Your task to perform on an android device: Go to accessibility settings Image 0: 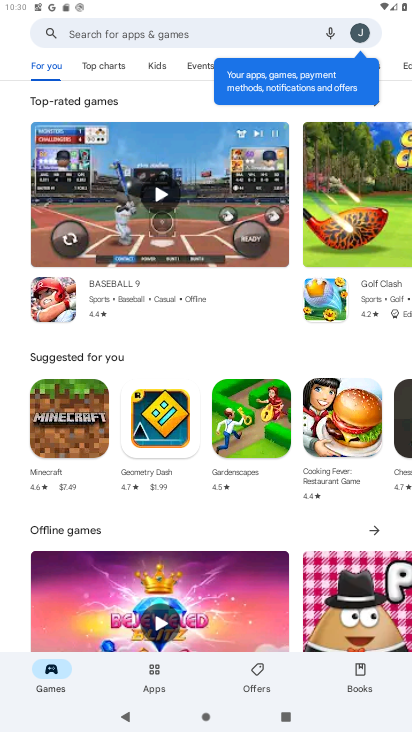
Step 0: press home button
Your task to perform on an android device: Go to accessibility settings Image 1: 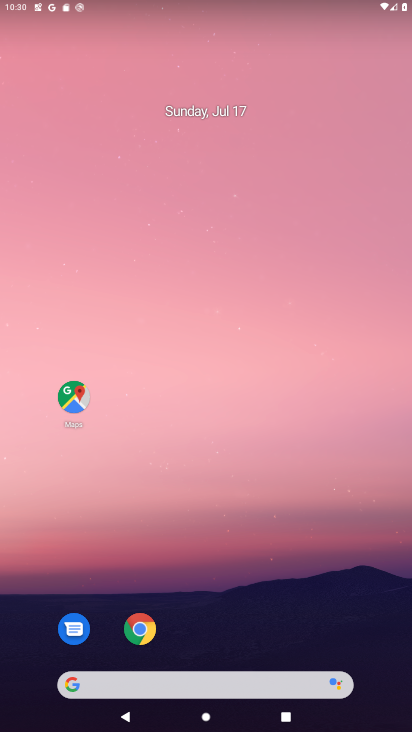
Step 1: drag from (249, 585) to (333, 167)
Your task to perform on an android device: Go to accessibility settings Image 2: 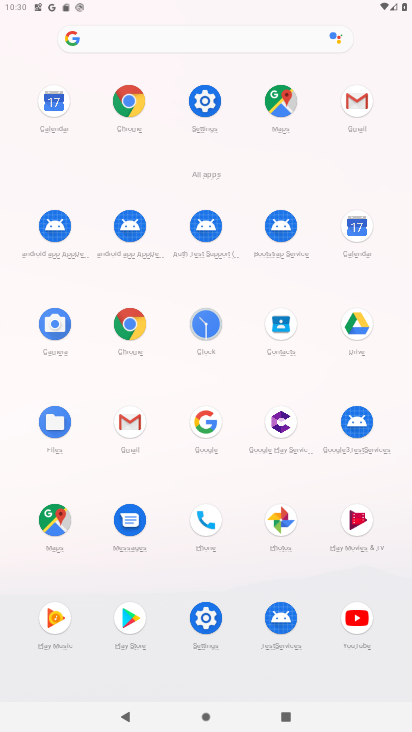
Step 2: click (206, 102)
Your task to perform on an android device: Go to accessibility settings Image 3: 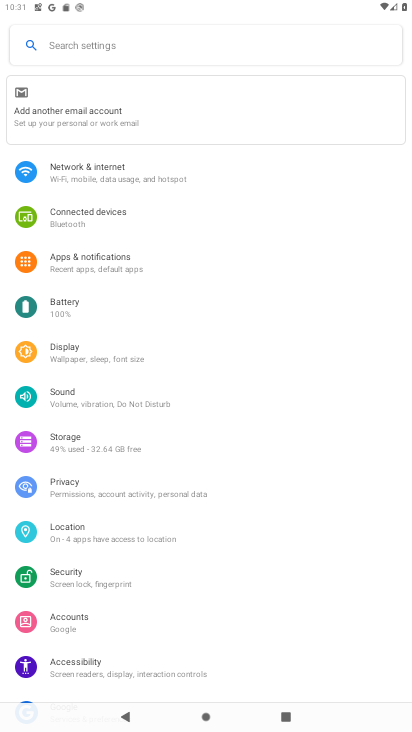
Step 3: click (72, 669)
Your task to perform on an android device: Go to accessibility settings Image 4: 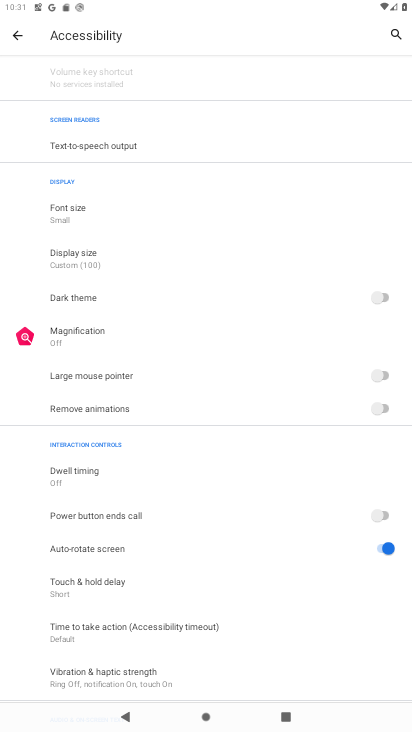
Step 4: task complete